Your task to perform on an android device: Check the weather Image 0: 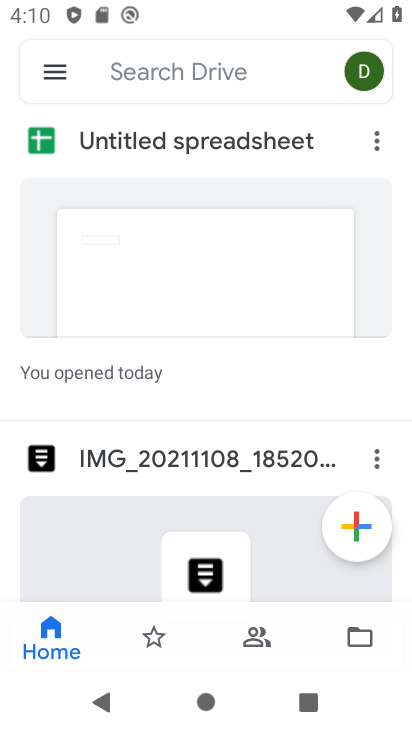
Step 0: press home button
Your task to perform on an android device: Check the weather Image 1: 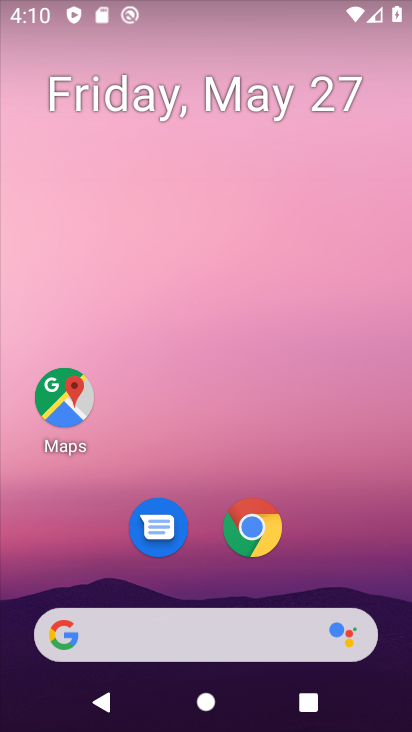
Step 1: drag from (8, 273) to (370, 173)
Your task to perform on an android device: Check the weather Image 2: 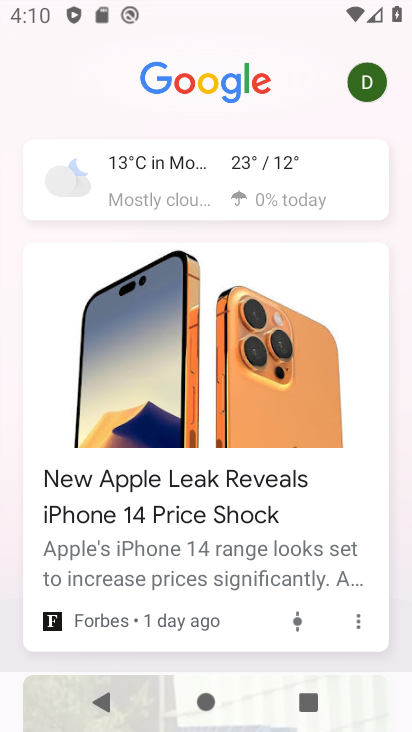
Step 2: click (281, 207)
Your task to perform on an android device: Check the weather Image 3: 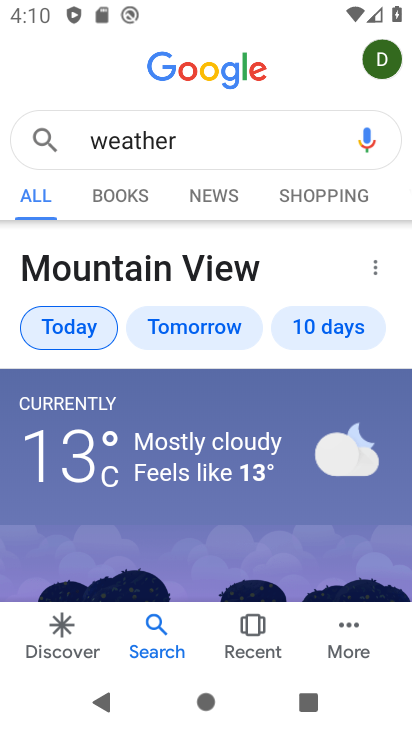
Step 3: task complete